Your task to perform on an android device: Open location settings Image 0: 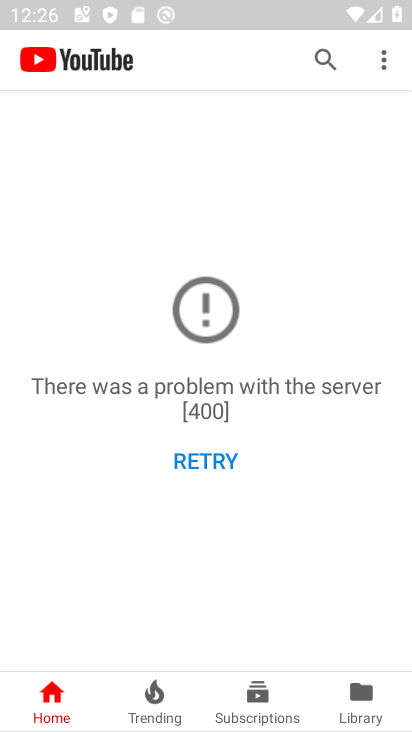
Step 0: press back button
Your task to perform on an android device: Open location settings Image 1: 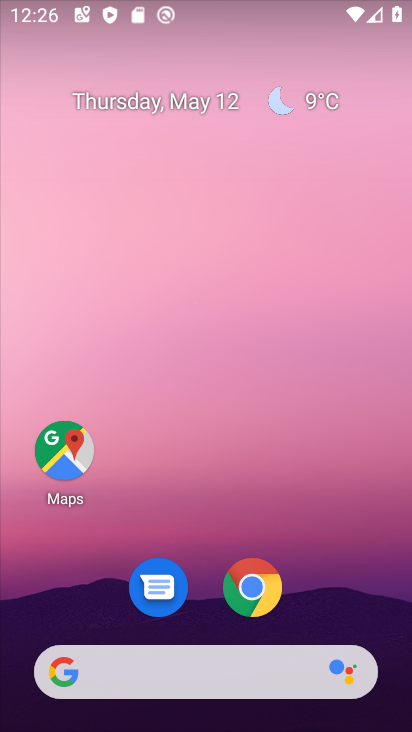
Step 1: drag from (199, 630) to (103, 116)
Your task to perform on an android device: Open location settings Image 2: 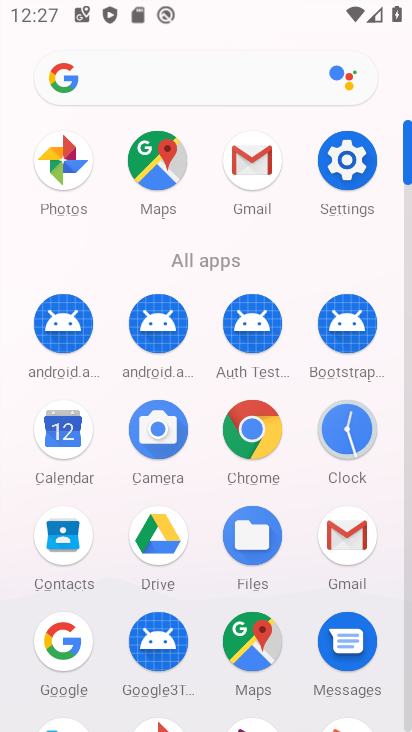
Step 2: click (314, 154)
Your task to perform on an android device: Open location settings Image 3: 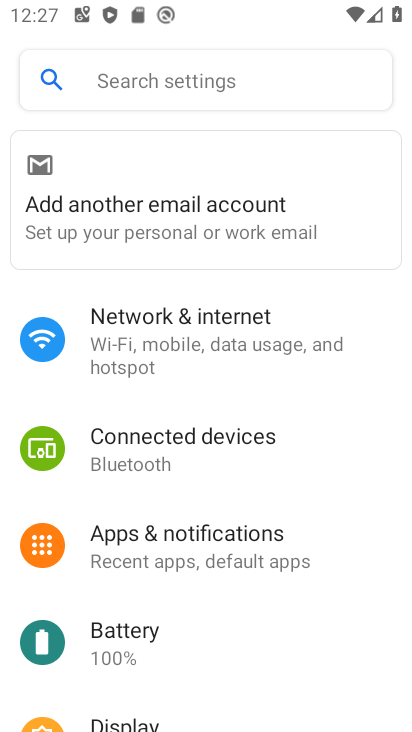
Step 3: drag from (305, 655) to (293, 202)
Your task to perform on an android device: Open location settings Image 4: 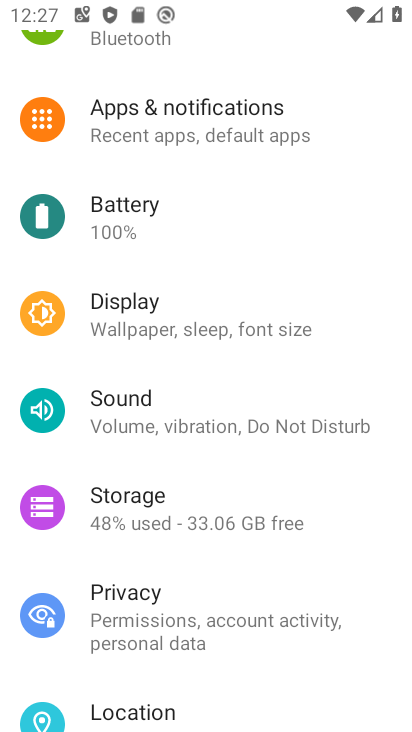
Step 4: click (164, 702)
Your task to perform on an android device: Open location settings Image 5: 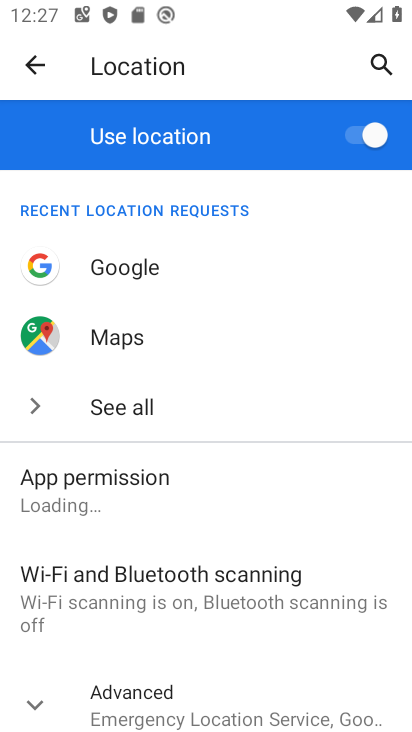
Step 5: click (160, 672)
Your task to perform on an android device: Open location settings Image 6: 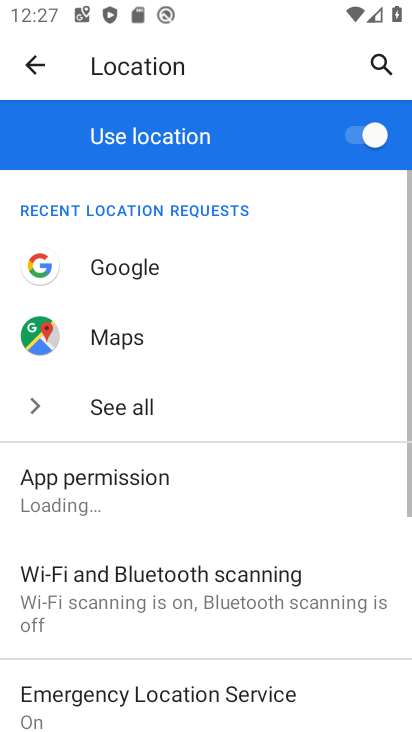
Step 6: task complete